Your task to perform on an android device: Go to Maps Image 0: 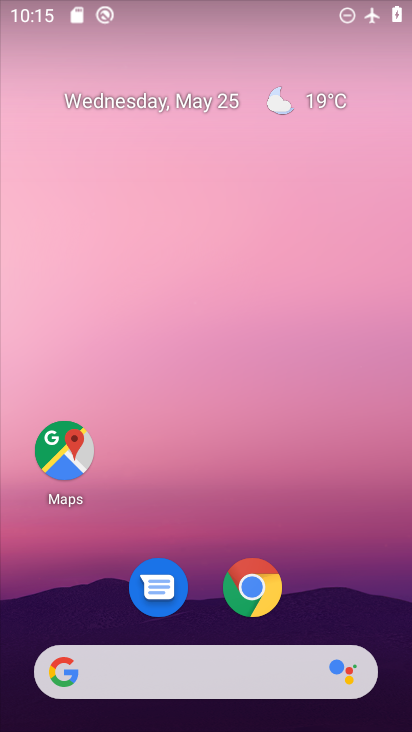
Step 0: click (60, 449)
Your task to perform on an android device: Go to Maps Image 1: 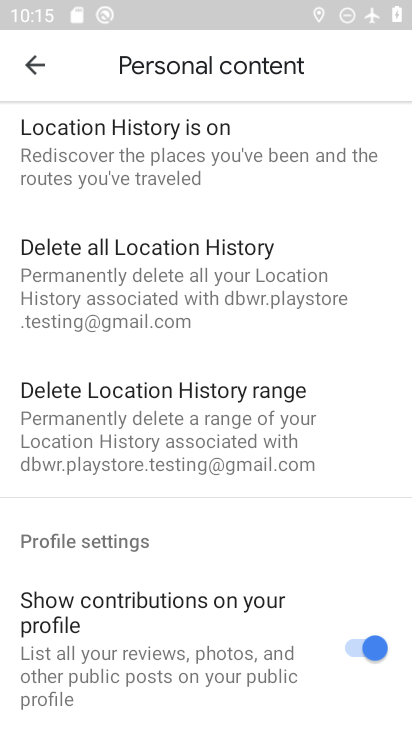
Step 1: task complete